Your task to perform on an android device: clear all cookies in the chrome app Image 0: 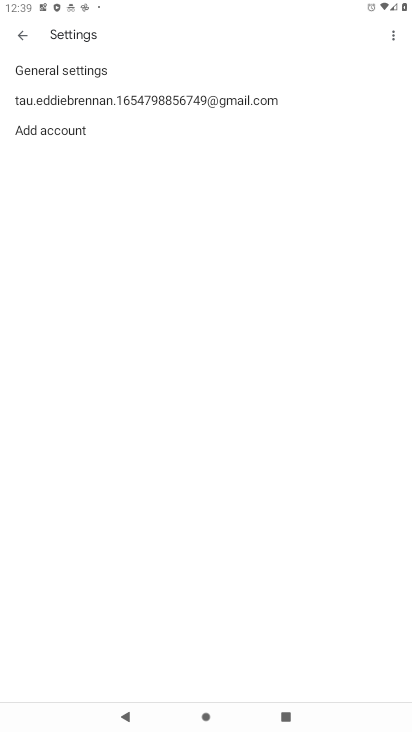
Step 0: press home button
Your task to perform on an android device: clear all cookies in the chrome app Image 1: 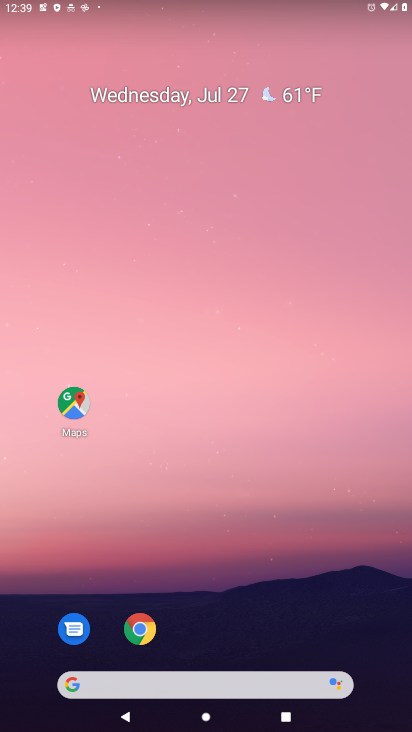
Step 1: click (142, 639)
Your task to perform on an android device: clear all cookies in the chrome app Image 2: 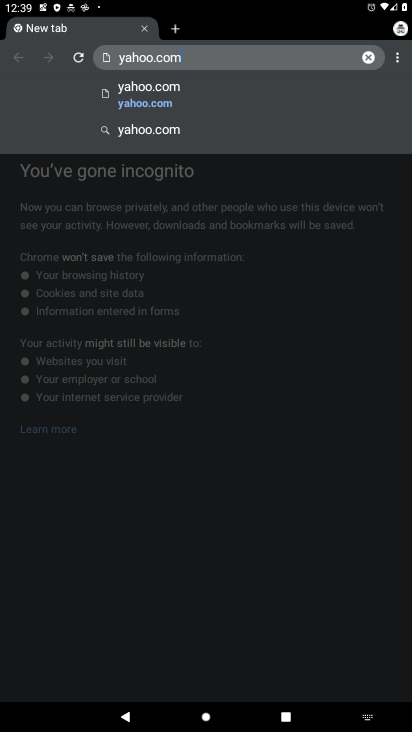
Step 2: task complete